Your task to perform on an android device: turn smart compose on in the gmail app Image 0: 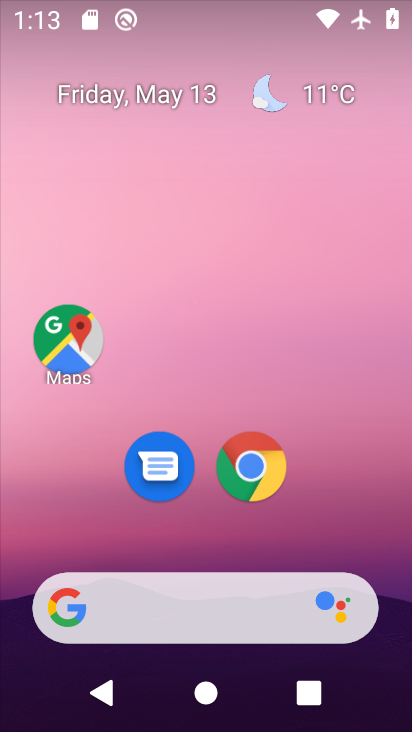
Step 0: drag from (191, 551) to (334, 16)
Your task to perform on an android device: turn smart compose on in the gmail app Image 1: 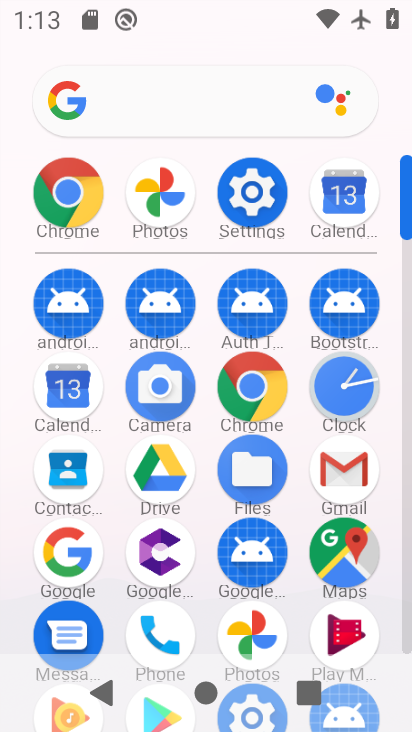
Step 1: click (332, 478)
Your task to perform on an android device: turn smart compose on in the gmail app Image 2: 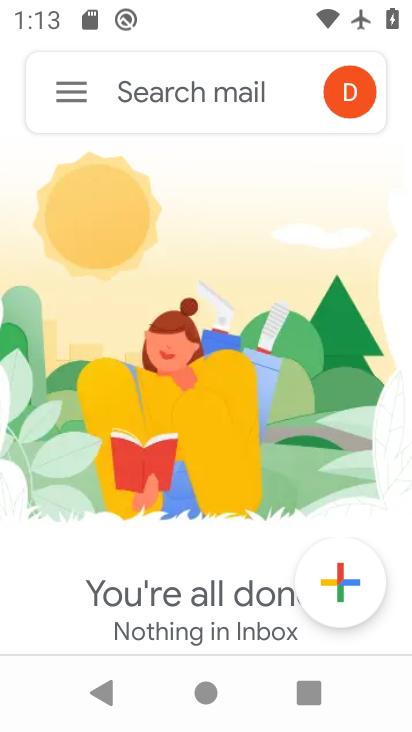
Step 2: click (81, 101)
Your task to perform on an android device: turn smart compose on in the gmail app Image 3: 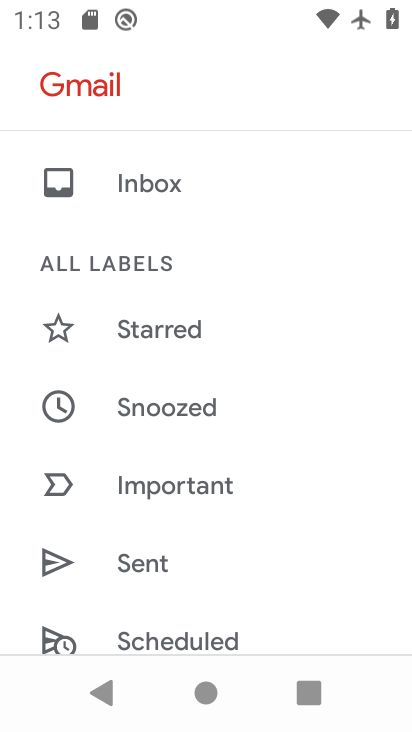
Step 3: drag from (168, 572) to (238, 246)
Your task to perform on an android device: turn smart compose on in the gmail app Image 4: 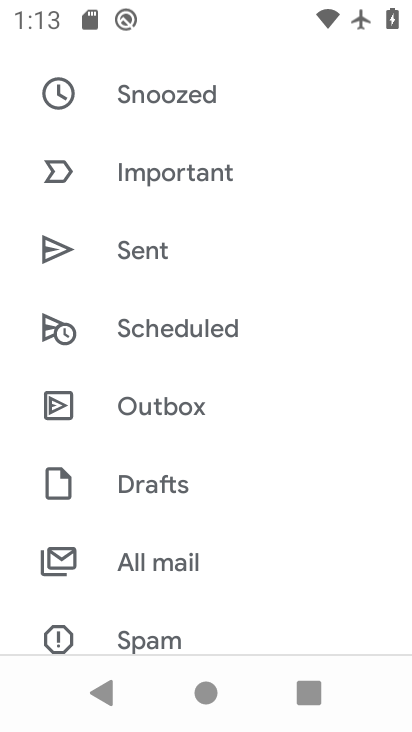
Step 4: drag from (221, 581) to (315, 195)
Your task to perform on an android device: turn smart compose on in the gmail app Image 5: 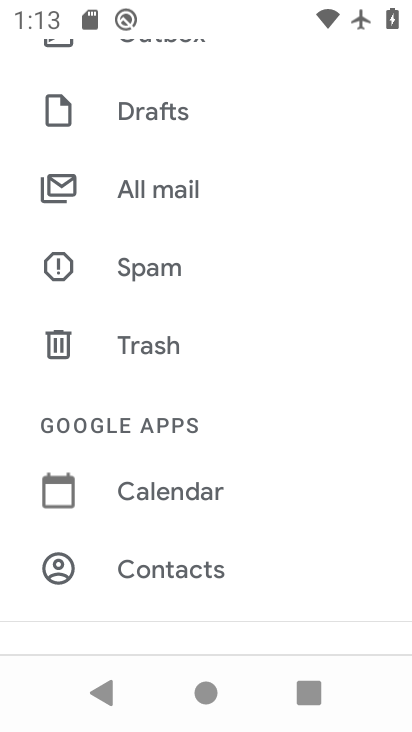
Step 5: drag from (145, 608) to (271, 140)
Your task to perform on an android device: turn smart compose on in the gmail app Image 6: 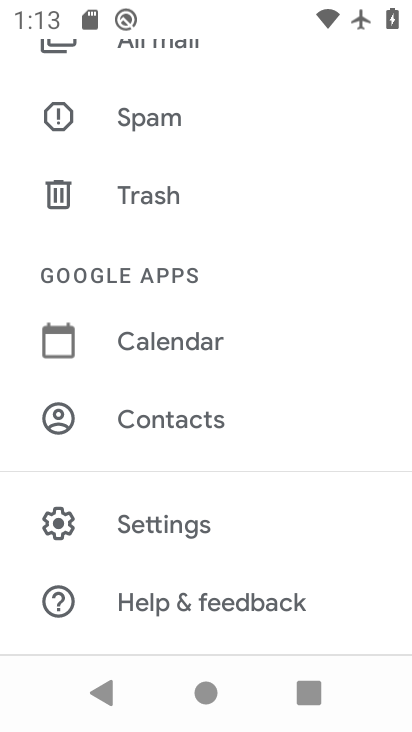
Step 6: click (120, 526)
Your task to perform on an android device: turn smart compose on in the gmail app Image 7: 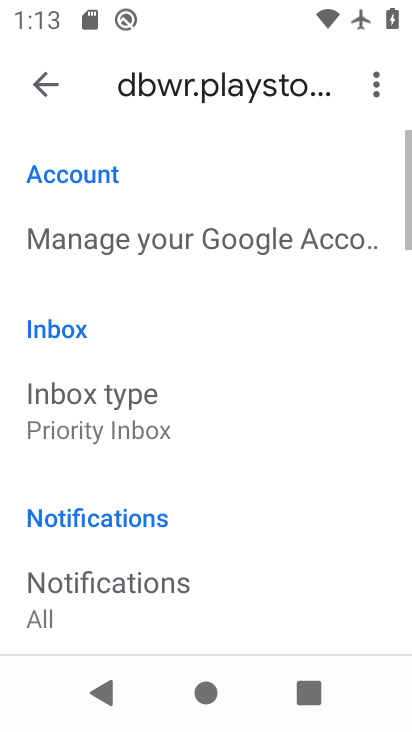
Step 7: task complete